Your task to perform on an android device: Do I have any events today? Image 0: 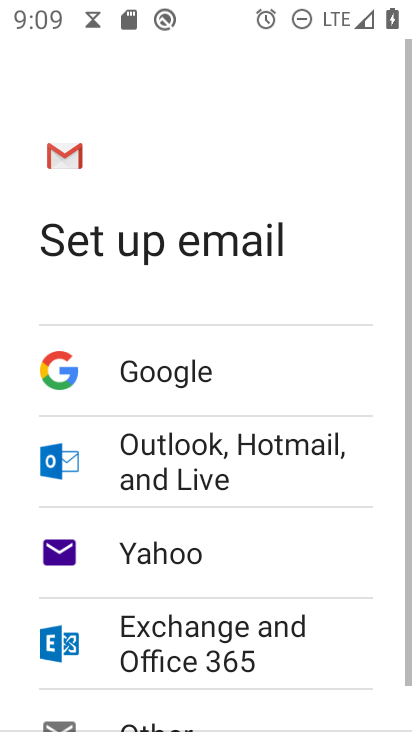
Step 0: press home button
Your task to perform on an android device: Do I have any events today? Image 1: 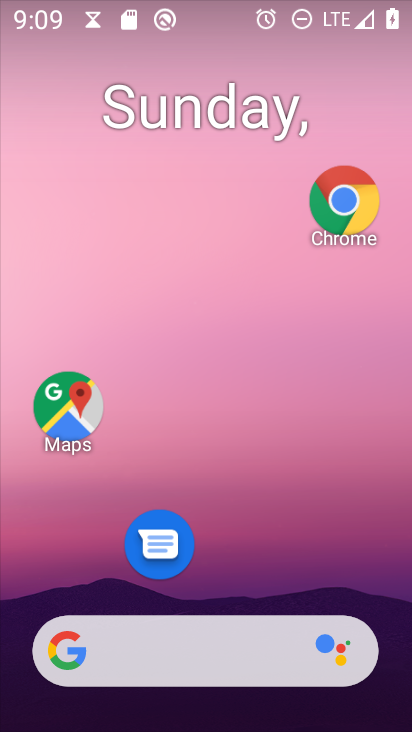
Step 1: drag from (274, 514) to (229, 119)
Your task to perform on an android device: Do I have any events today? Image 2: 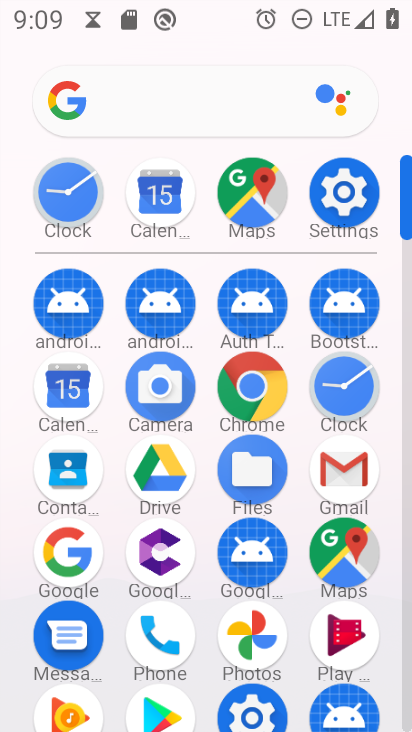
Step 2: click (67, 398)
Your task to perform on an android device: Do I have any events today? Image 3: 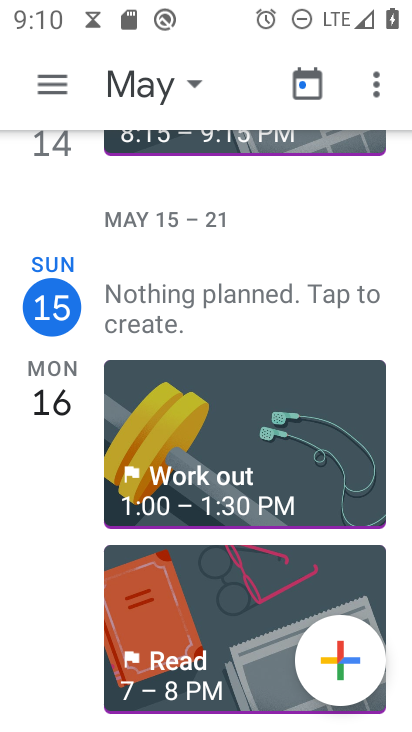
Step 3: task complete